Your task to perform on an android device: turn off airplane mode Image 0: 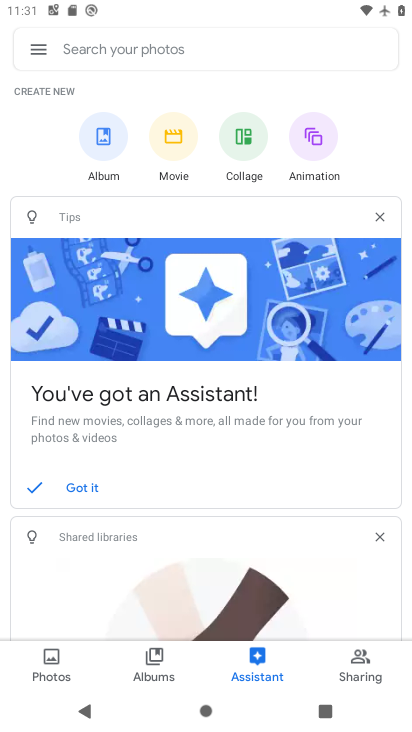
Step 0: press home button
Your task to perform on an android device: turn off airplane mode Image 1: 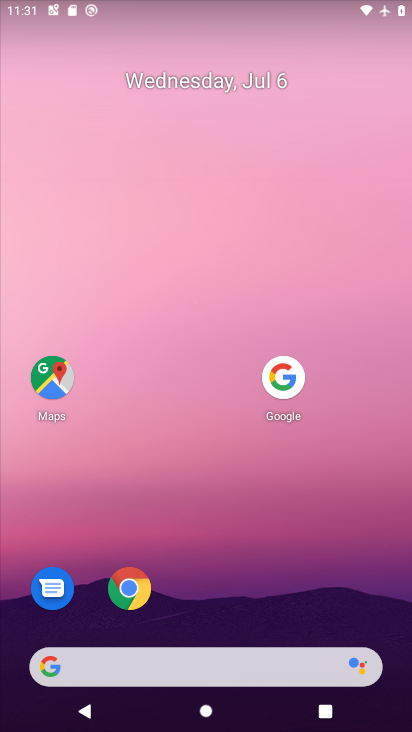
Step 1: drag from (194, 661) to (225, 82)
Your task to perform on an android device: turn off airplane mode Image 2: 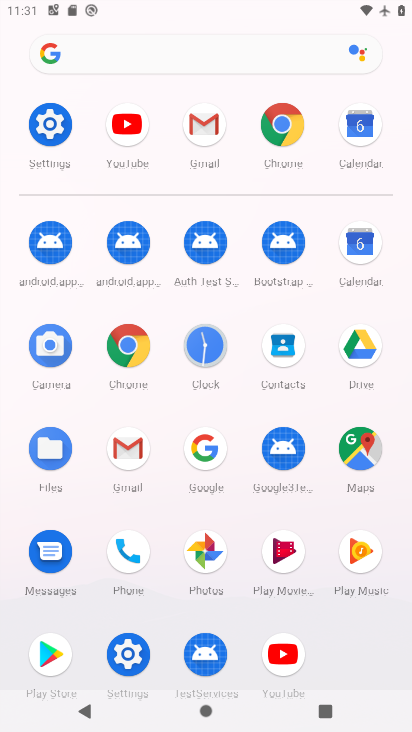
Step 2: click (53, 126)
Your task to perform on an android device: turn off airplane mode Image 3: 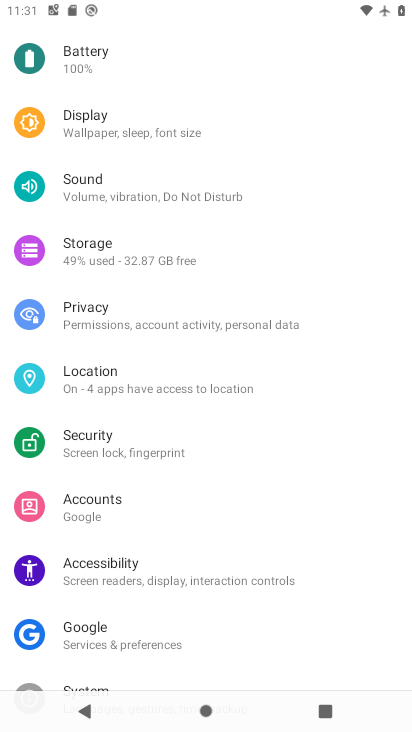
Step 3: drag from (275, 87) to (232, 573)
Your task to perform on an android device: turn off airplane mode Image 4: 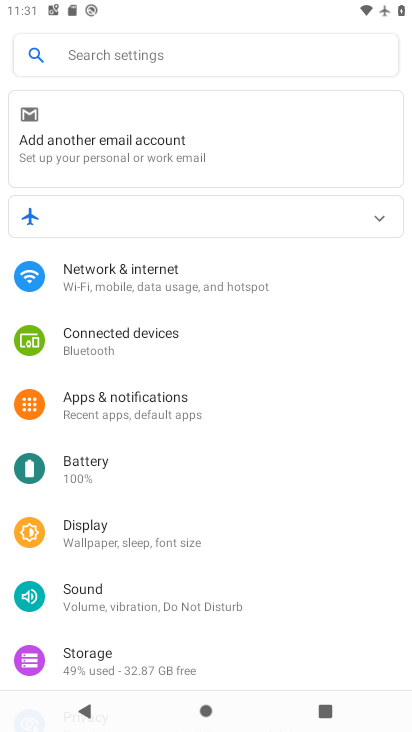
Step 4: click (167, 278)
Your task to perform on an android device: turn off airplane mode Image 5: 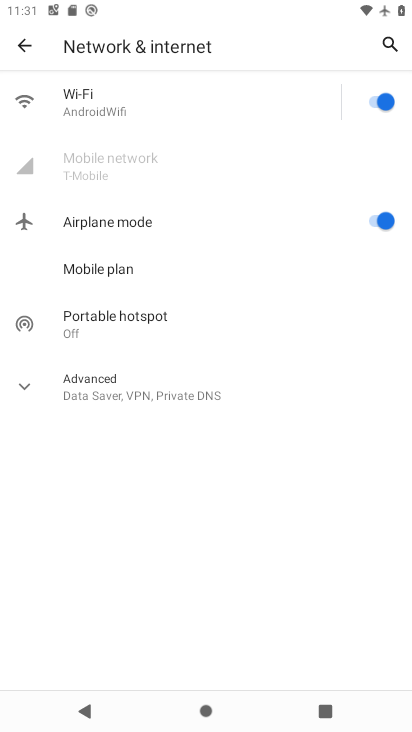
Step 5: click (376, 221)
Your task to perform on an android device: turn off airplane mode Image 6: 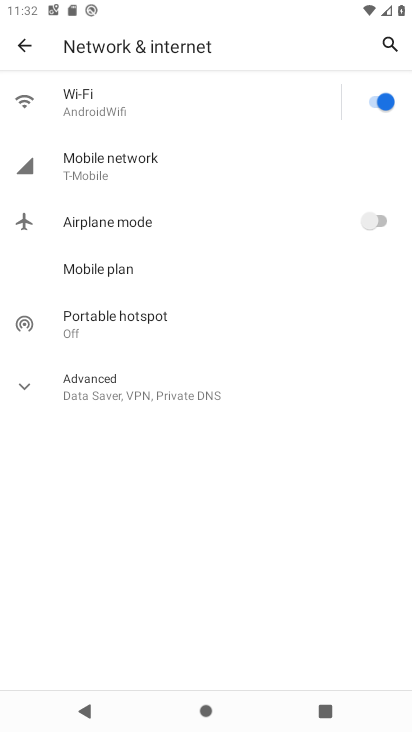
Step 6: task complete